Your task to perform on an android device: open app "Clock" Image 0: 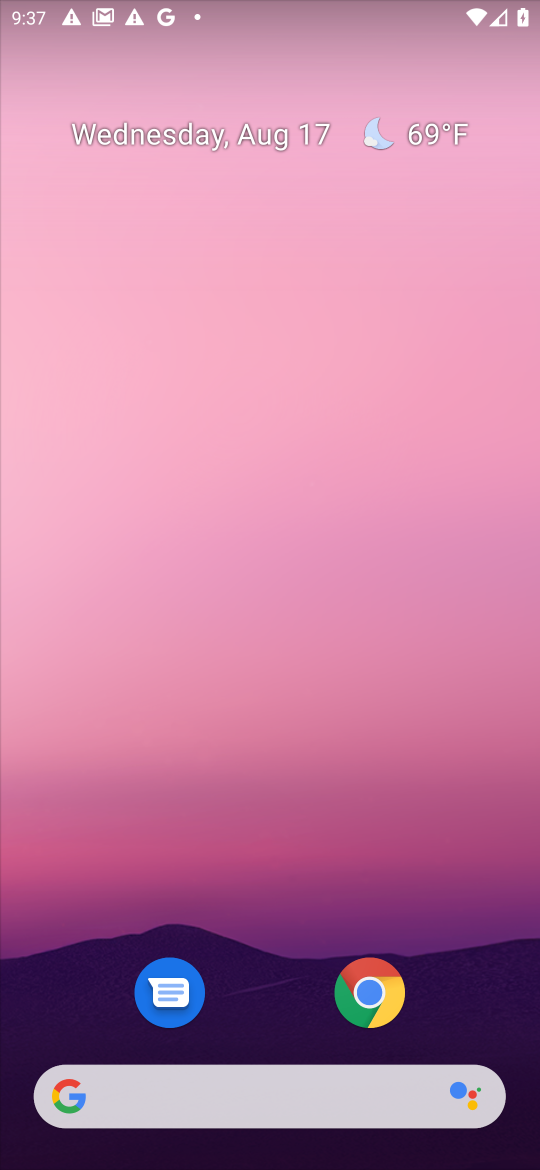
Step 0: drag from (508, 1003) to (122, 29)
Your task to perform on an android device: open app "Clock" Image 1: 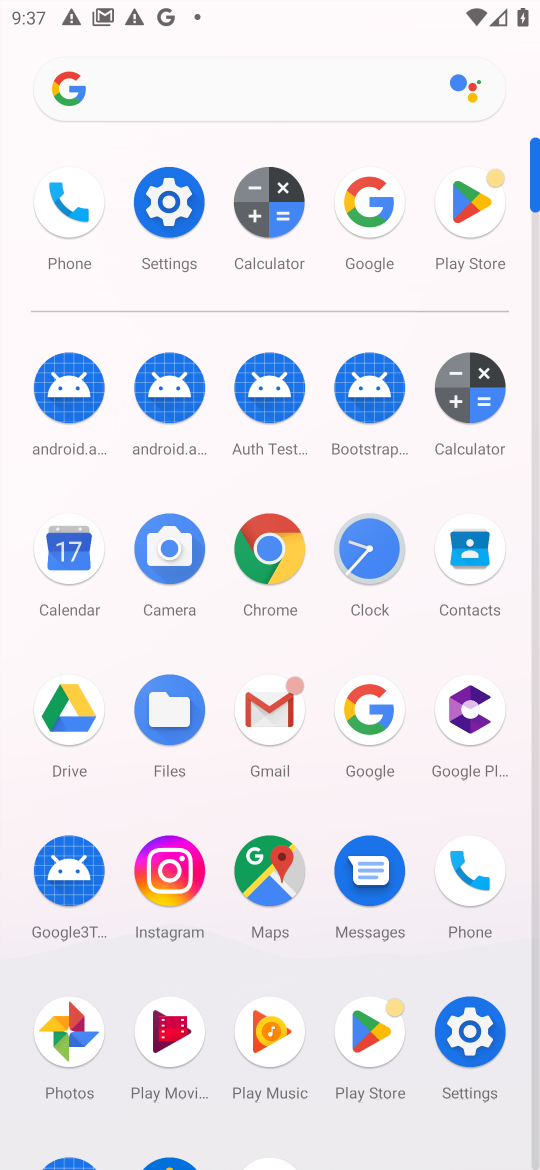
Step 1: click (362, 553)
Your task to perform on an android device: open app "Clock" Image 2: 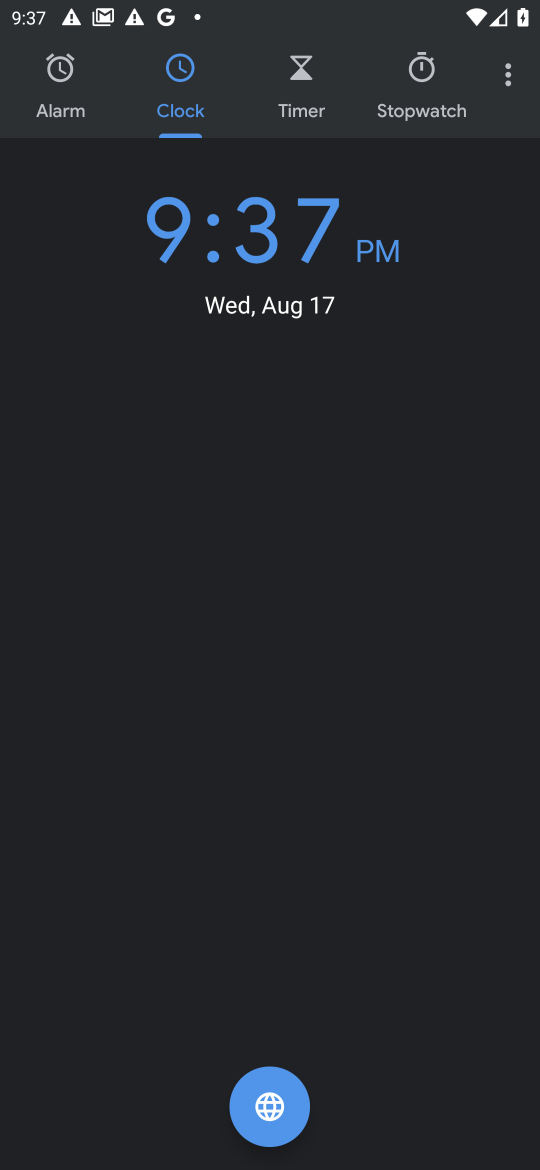
Step 2: task complete